Your task to perform on an android device: Go to Google maps Image 0: 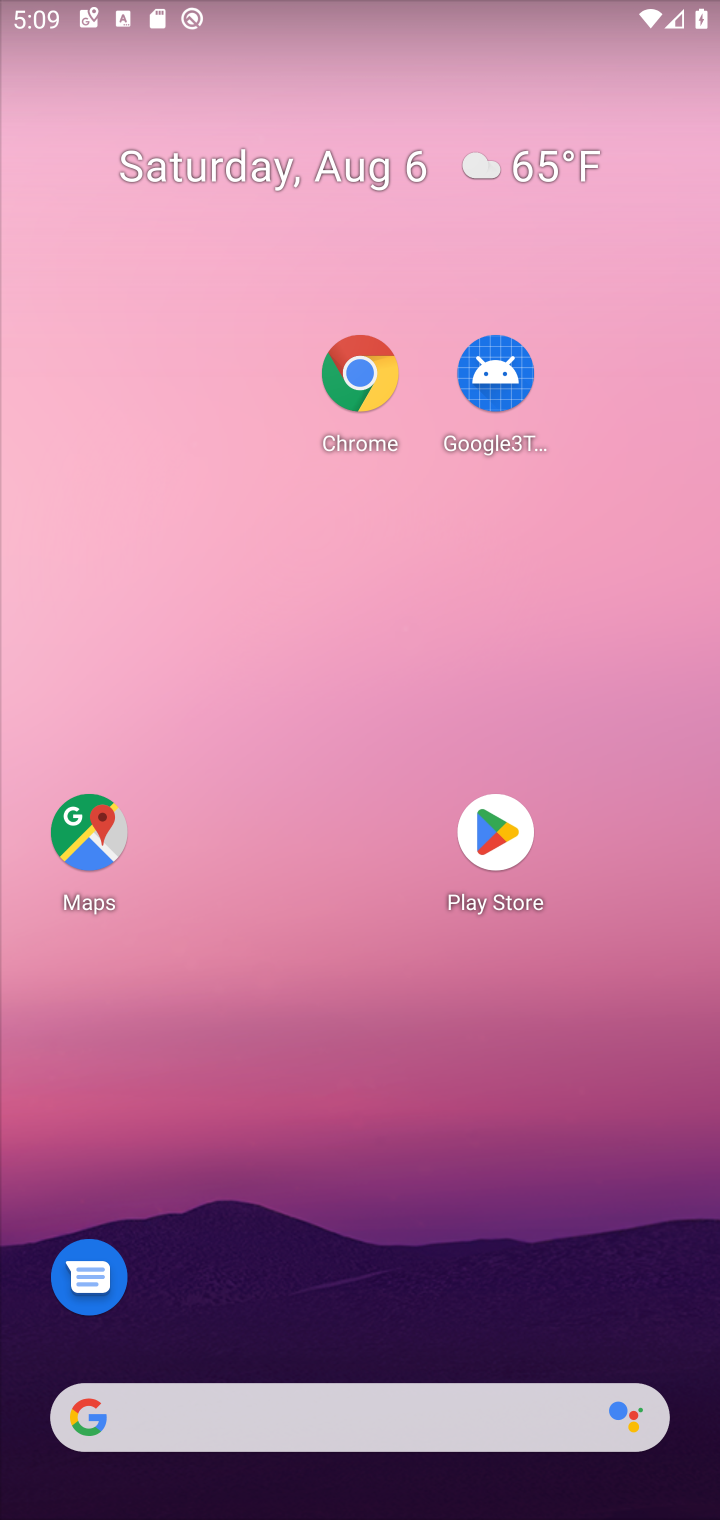
Step 0: drag from (413, 1402) to (553, 104)
Your task to perform on an android device: Go to Google maps Image 1: 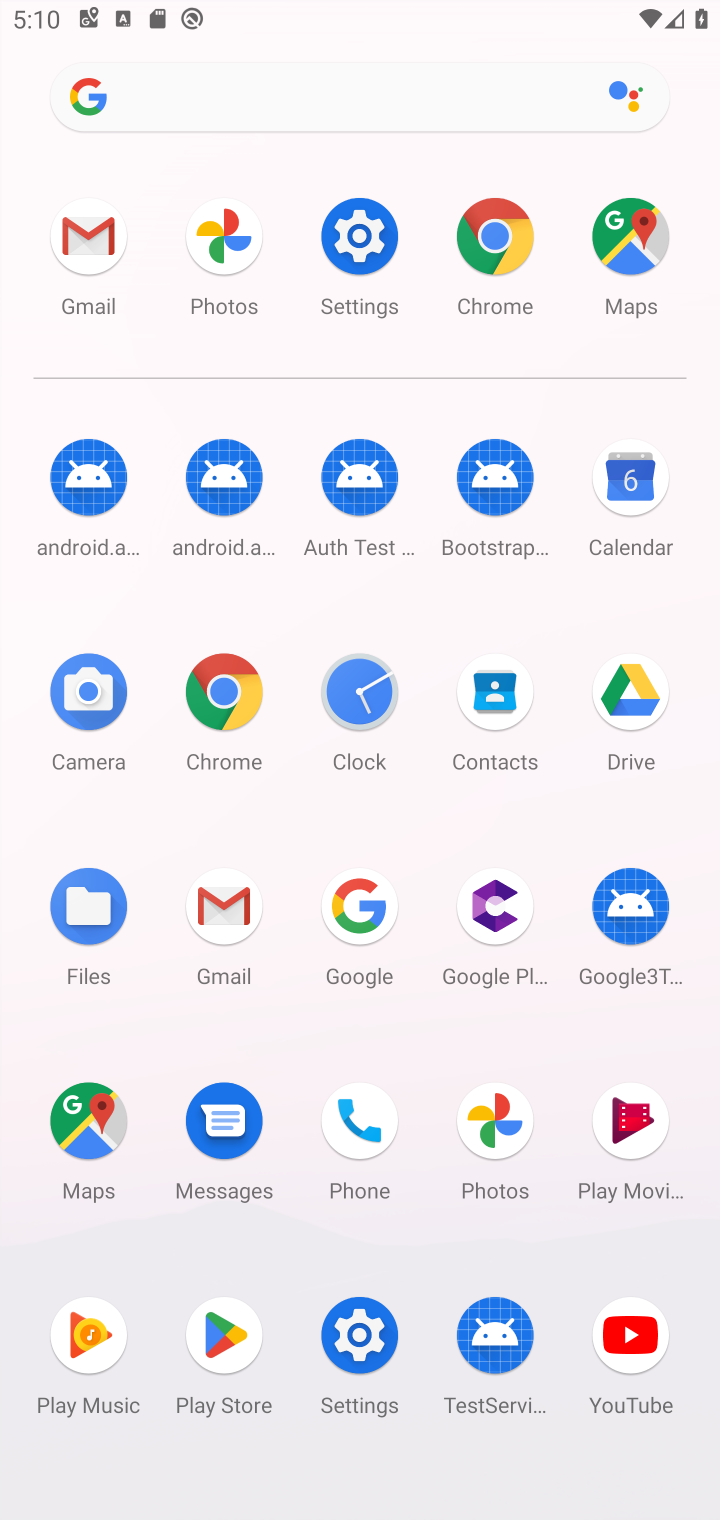
Step 1: click (74, 1113)
Your task to perform on an android device: Go to Google maps Image 2: 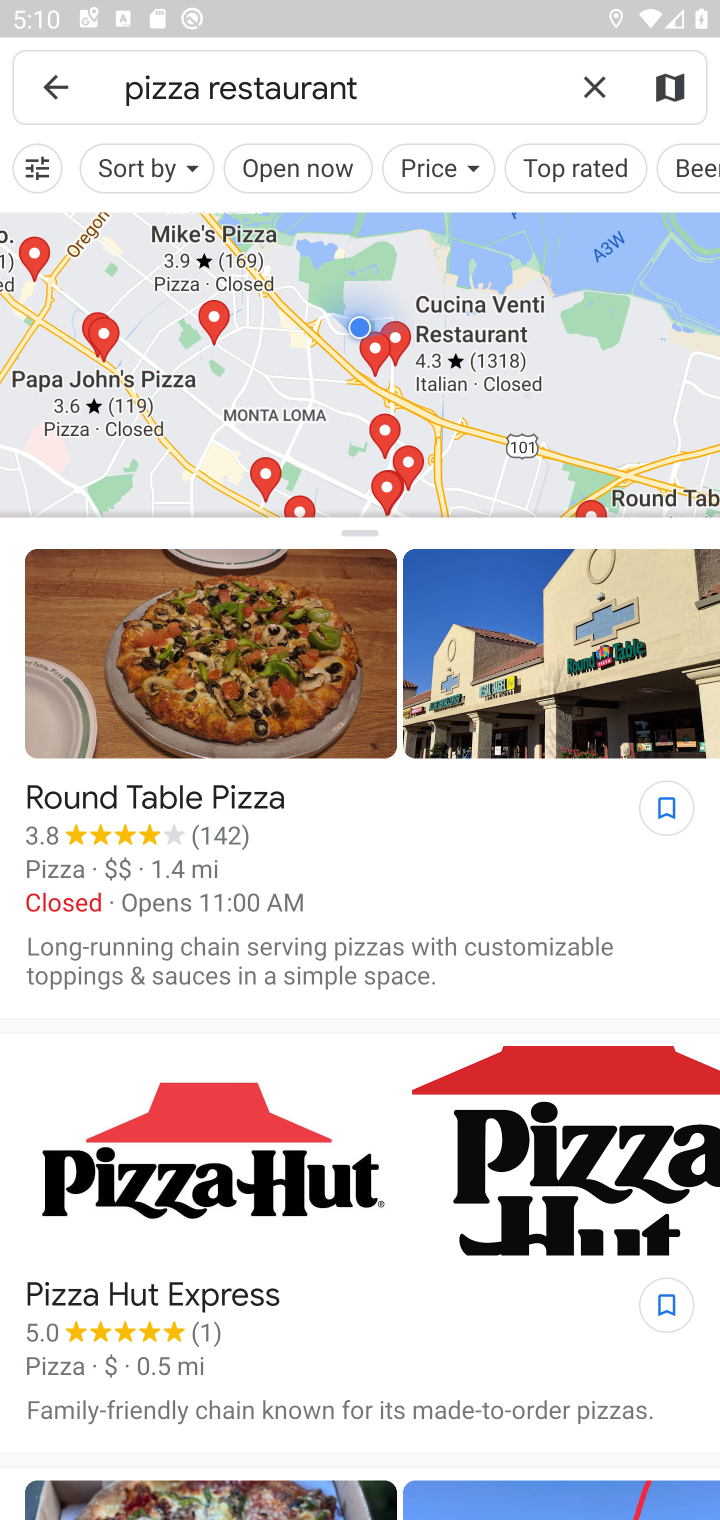
Step 2: task complete